Your task to perform on an android device: Search for the new steph curry shoes on Amazon. Image 0: 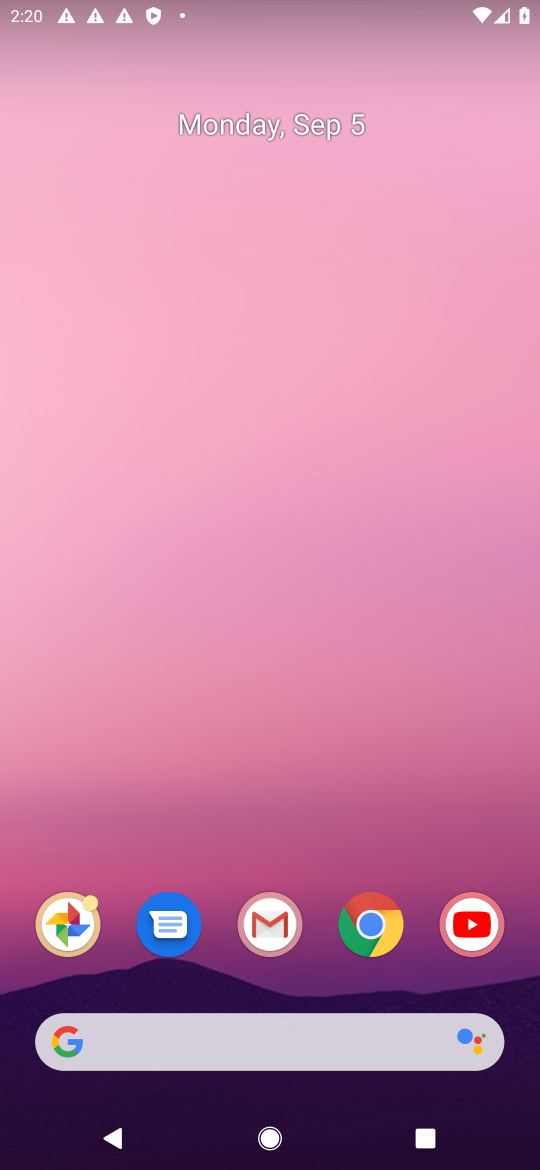
Step 0: drag from (289, 1037) to (430, 45)
Your task to perform on an android device: Search for the new steph curry shoes on Amazon. Image 1: 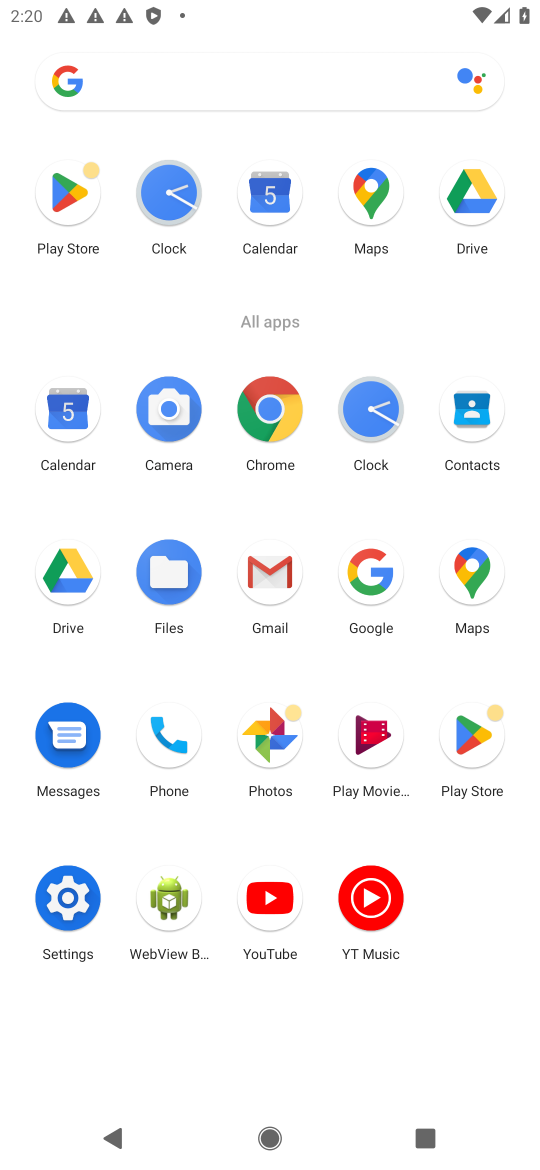
Step 1: click (272, 456)
Your task to perform on an android device: Search for the new steph curry shoes on Amazon. Image 2: 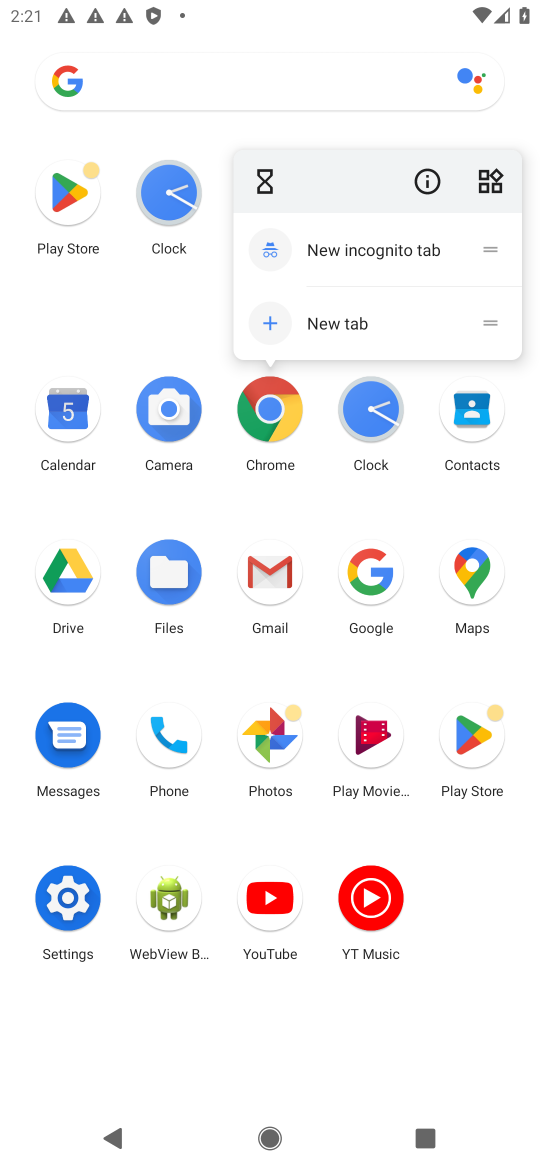
Step 2: click (285, 433)
Your task to perform on an android device: Search for the new steph curry shoes on Amazon. Image 3: 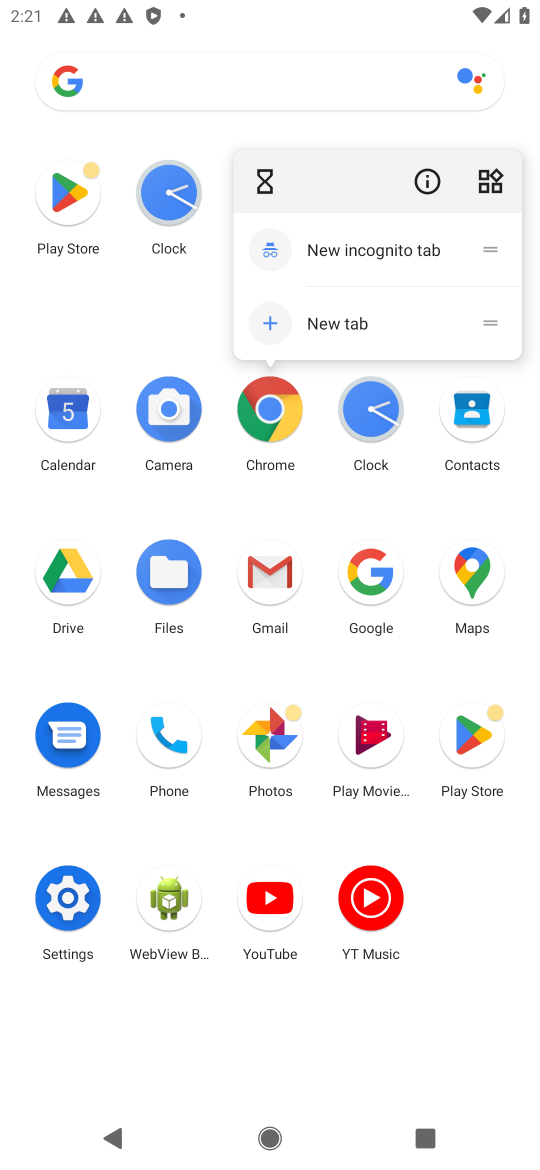
Step 3: click (285, 433)
Your task to perform on an android device: Search for the new steph curry shoes on Amazon. Image 4: 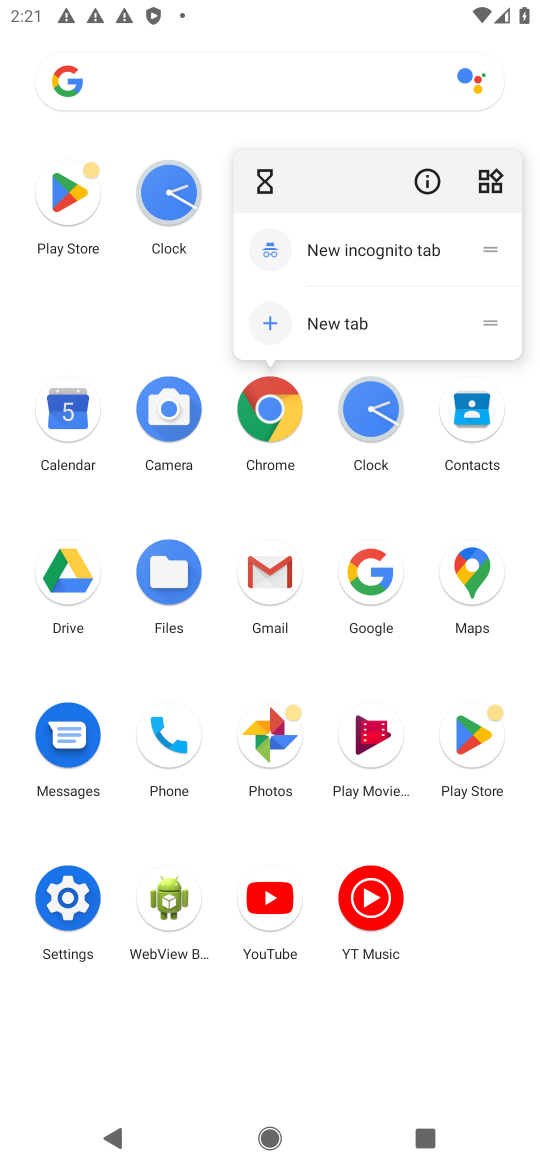
Step 4: click (285, 433)
Your task to perform on an android device: Search for the new steph curry shoes on Amazon. Image 5: 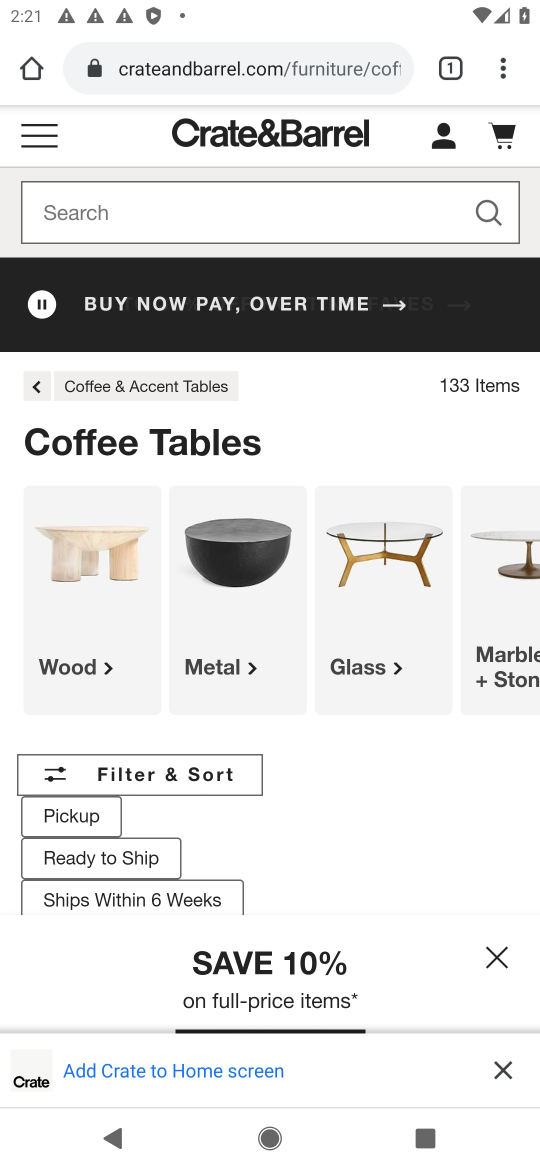
Step 5: click (314, 70)
Your task to perform on an android device: Search for the new steph curry shoes on Amazon. Image 6: 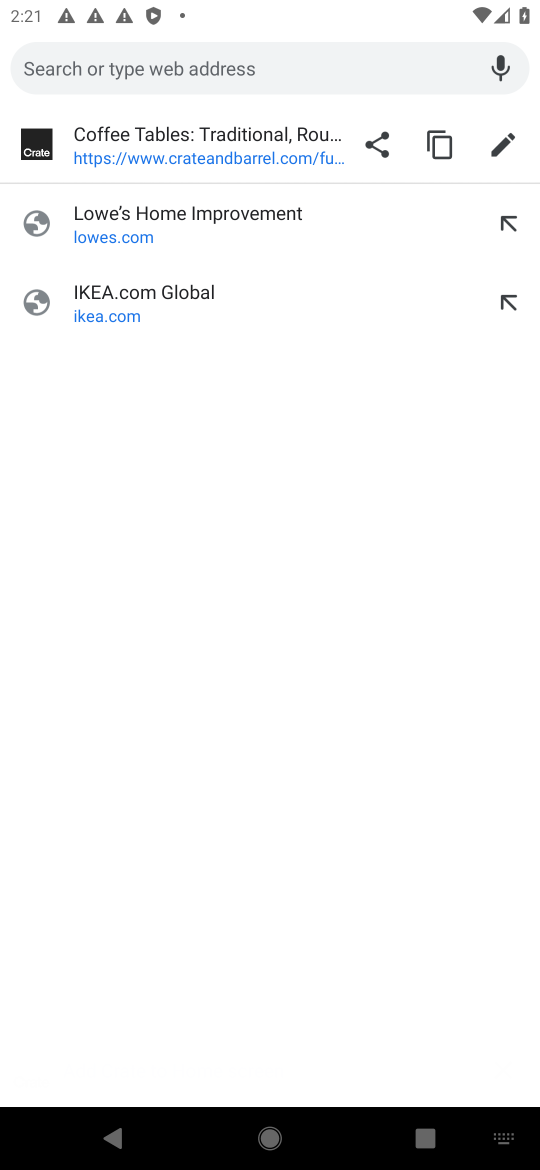
Step 6: type "amazon"
Your task to perform on an android device: Search for the new steph curry shoes on Amazon. Image 7: 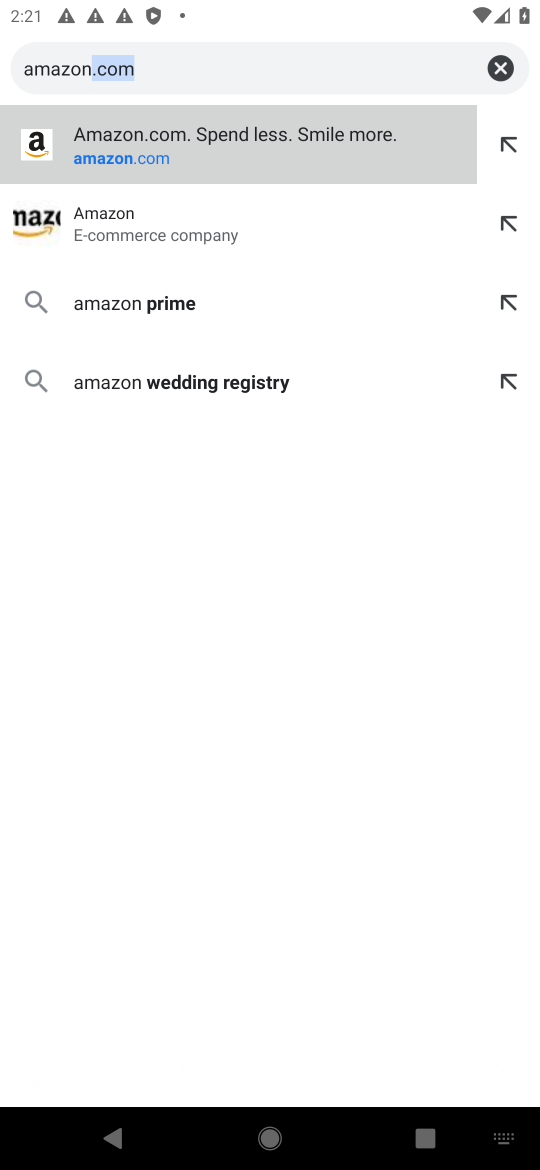
Step 7: click (385, 168)
Your task to perform on an android device: Search for the new steph curry shoes on Amazon. Image 8: 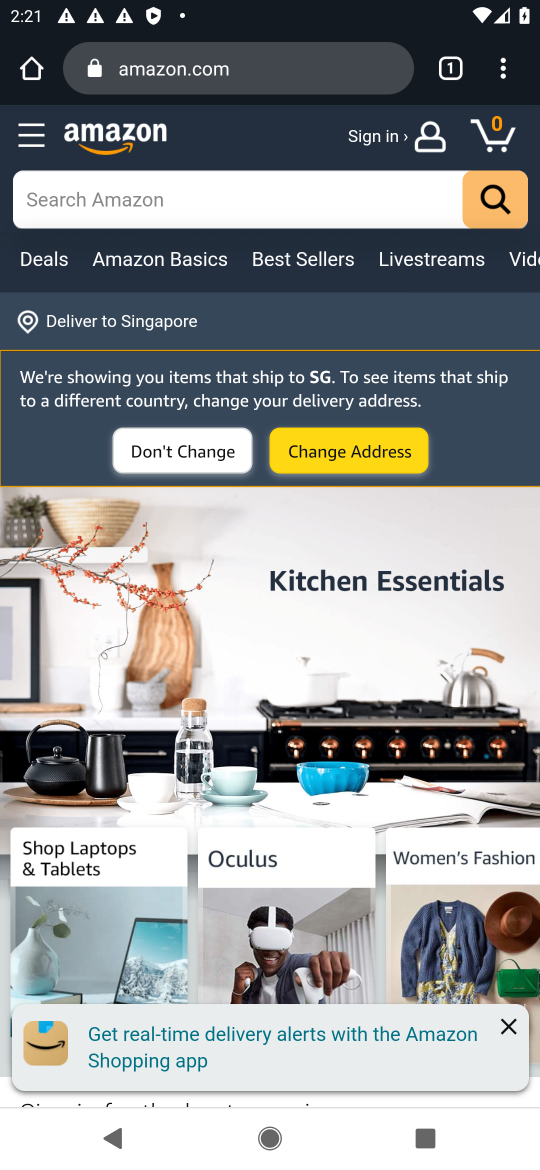
Step 8: click (319, 188)
Your task to perform on an android device: Search for the new steph curry shoes on Amazon. Image 9: 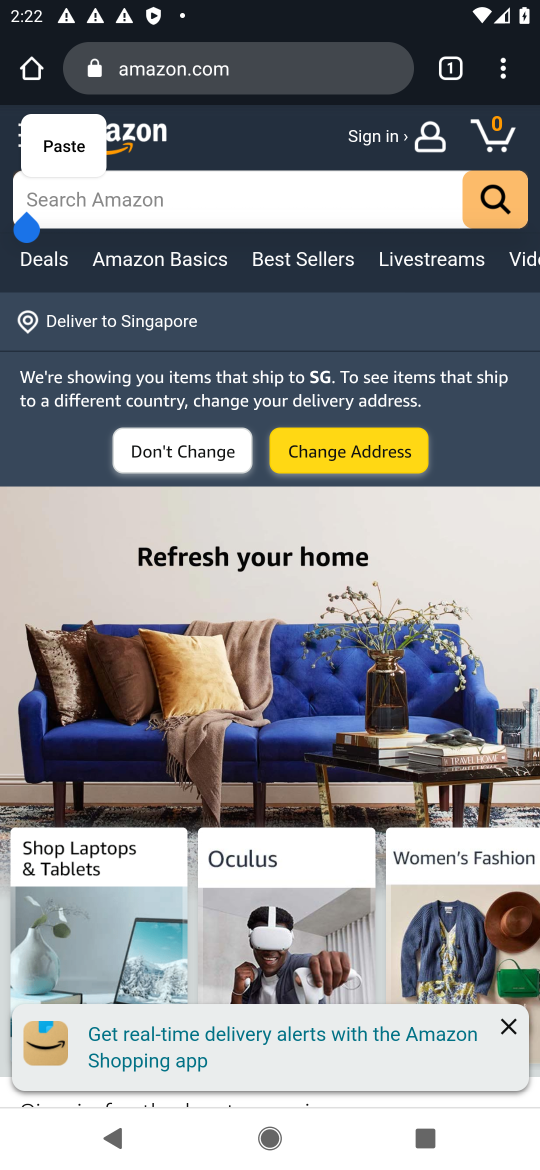
Step 9: type "new steph curry shoes"
Your task to perform on an android device: Search for the new steph curry shoes on Amazon. Image 10: 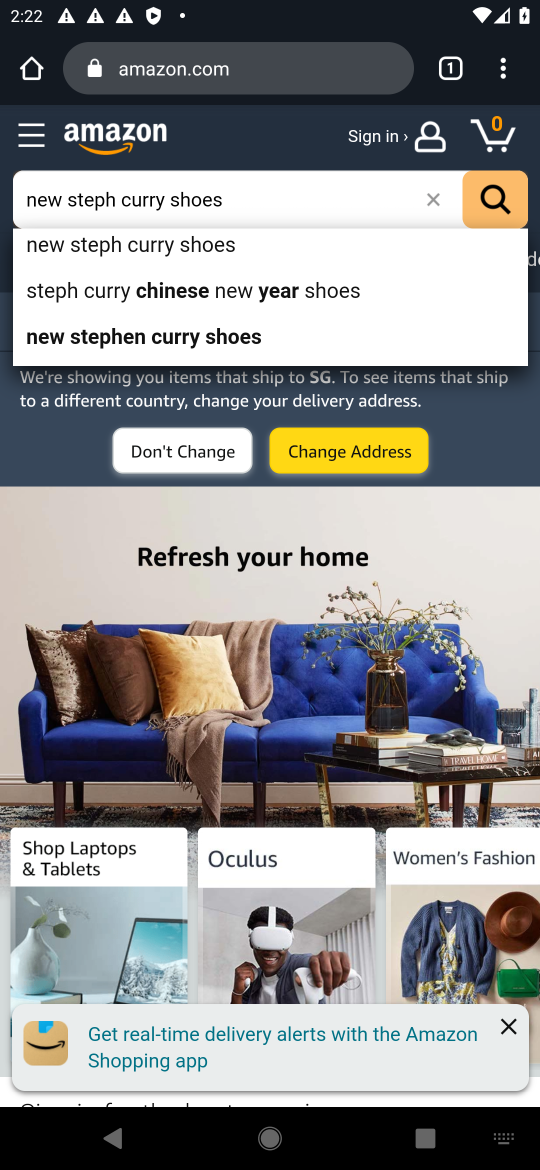
Step 10: click (182, 235)
Your task to perform on an android device: Search for the new steph curry shoes on Amazon. Image 11: 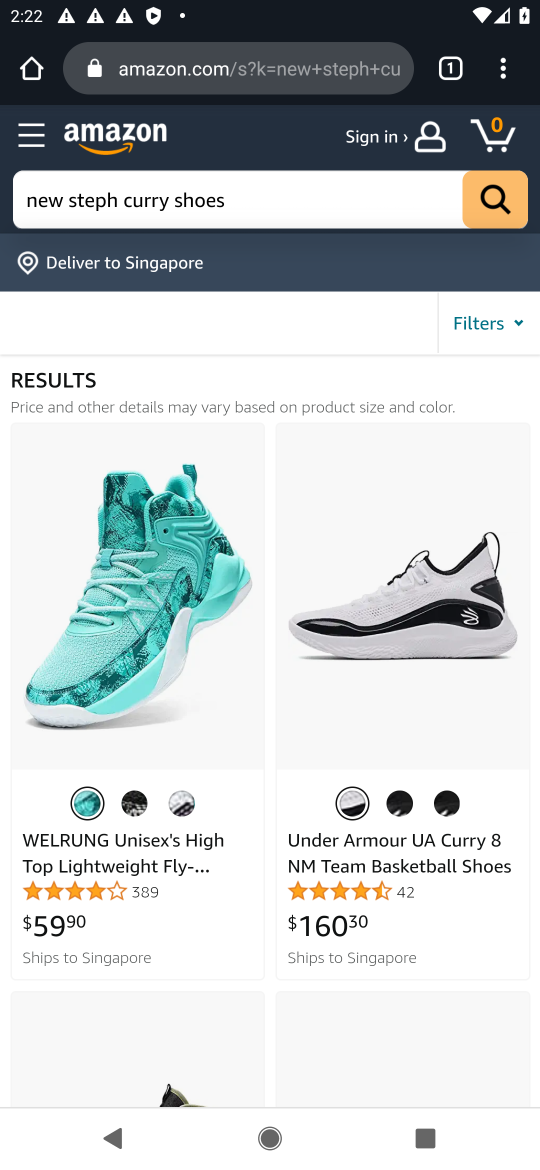
Step 11: task complete